Your task to perform on an android device: check storage Image 0: 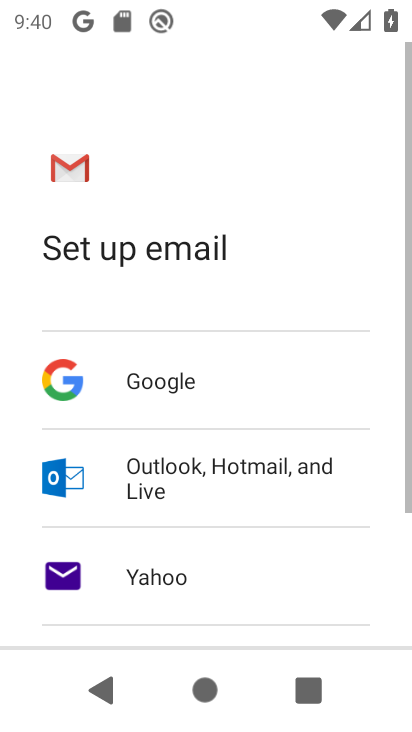
Step 0: press home button
Your task to perform on an android device: check storage Image 1: 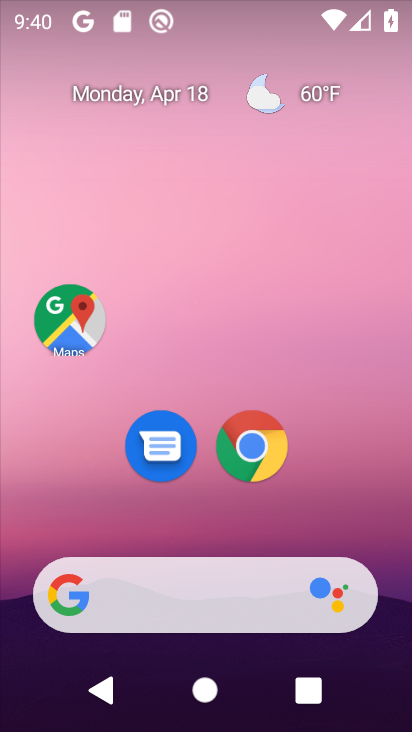
Step 1: drag from (385, 512) to (365, 170)
Your task to perform on an android device: check storage Image 2: 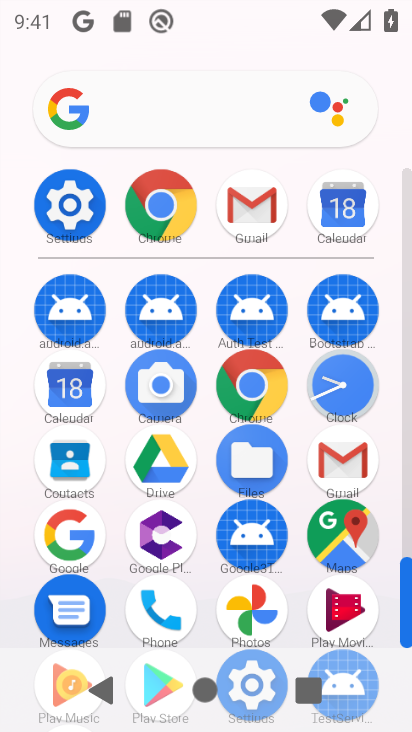
Step 2: click (63, 223)
Your task to perform on an android device: check storage Image 3: 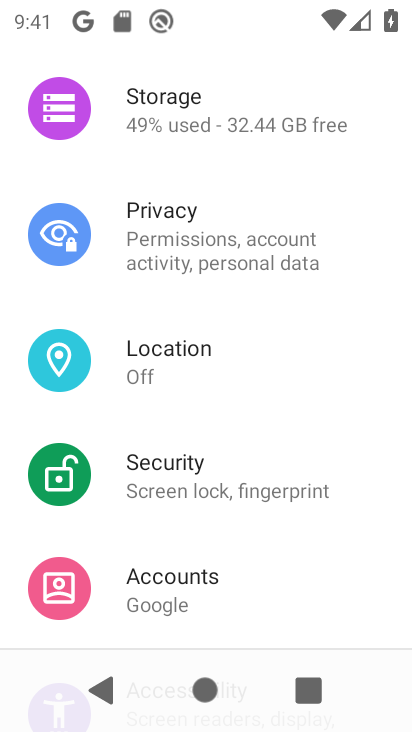
Step 3: drag from (373, 505) to (385, 330)
Your task to perform on an android device: check storage Image 4: 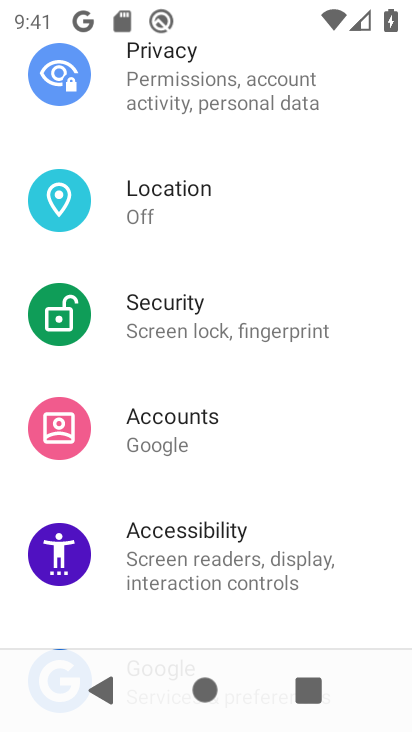
Step 4: drag from (375, 524) to (372, 314)
Your task to perform on an android device: check storage Image 5: 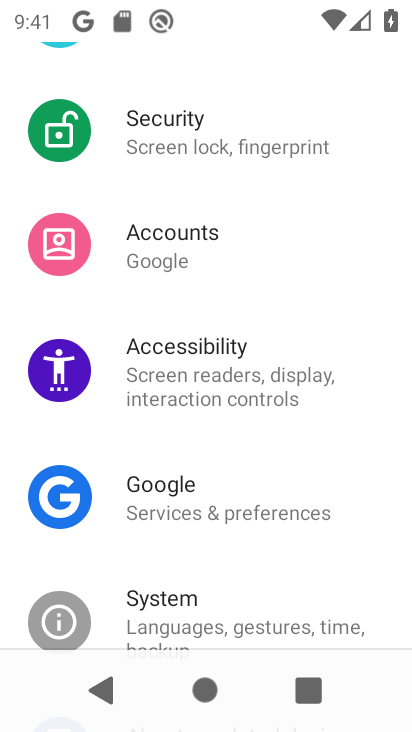
Step 5: drag from (372, 532) to (373, 359)
Your task to perform on an android device: check storage Image 6: 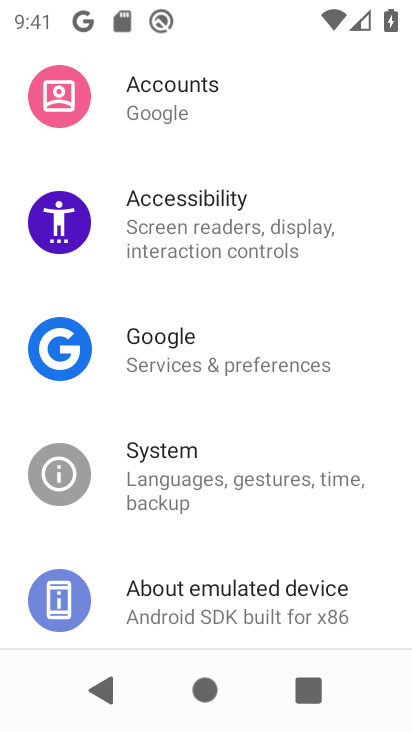
Step 6: drag from (382, 573) to (384, 326)
Your task to perform on an android device: check storage Image 7: 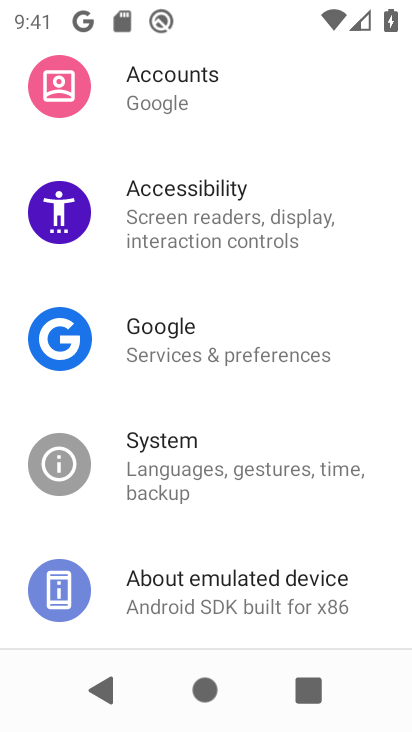
Step 7: drag from (382, 259) to (379, 479)
Your task to perform on an android device: check storage Image 8: 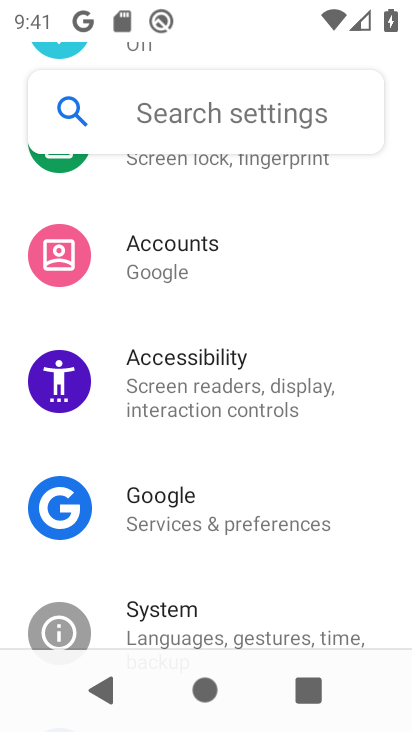
Step 8: drag from (376, 308) to (375, 479)
Your task to perform on an android device: check storage Image 9: 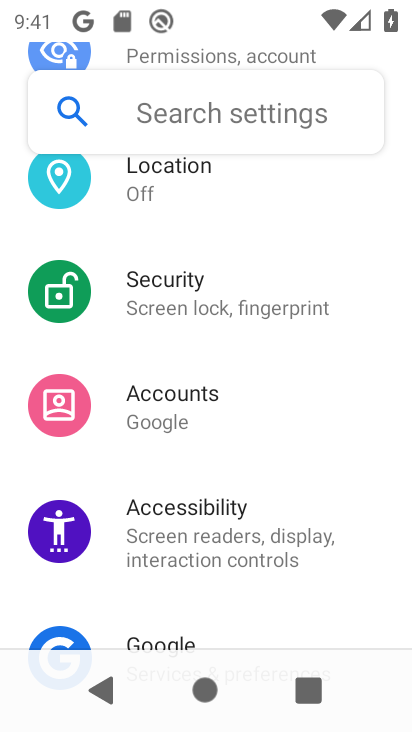
Step 9: drag from (378, 288) to (369, 482)
Your task to perform on an android device: check storage Image 10: 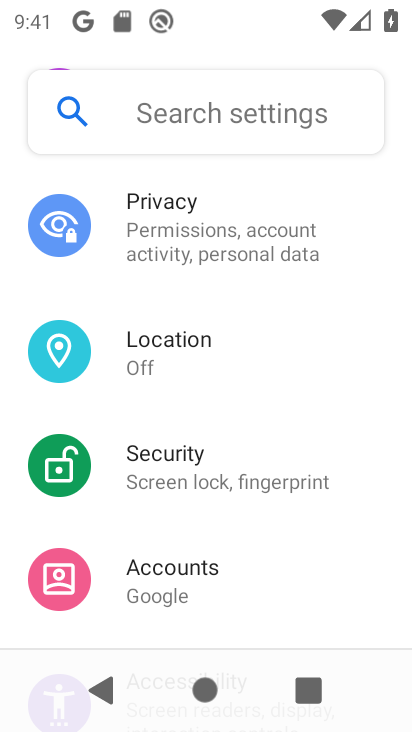
Step 10: drag from (364, 279) to (374, 466)
Your task to perform on an android device: check storage Image 11: 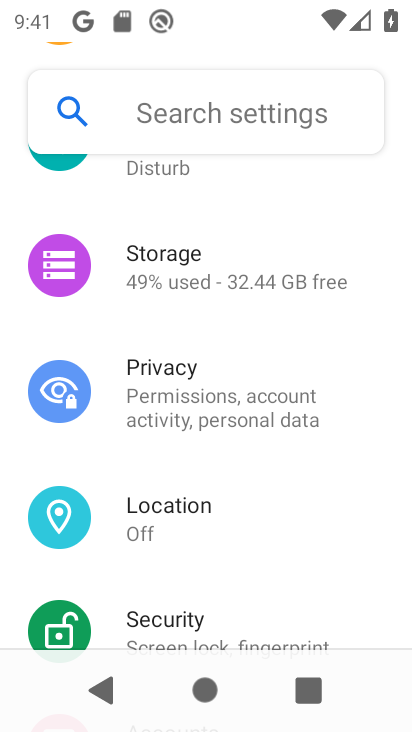
Step 11: click (222, 273)
Your task to perform on an android device: check storage Image 12: 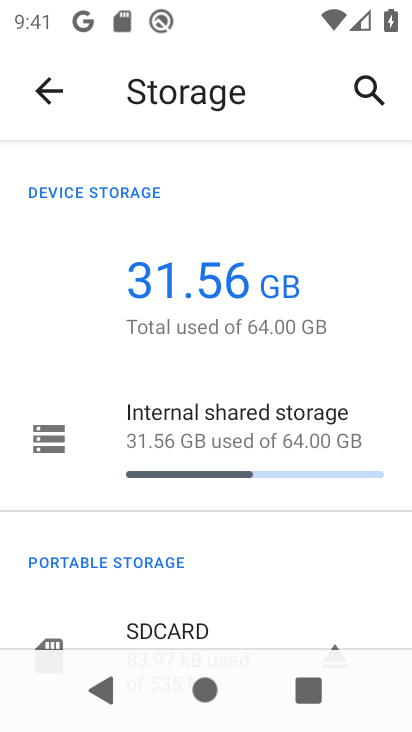
Step 12: task complete